Your task to perform on an android device: change text size in settings app Image 0: 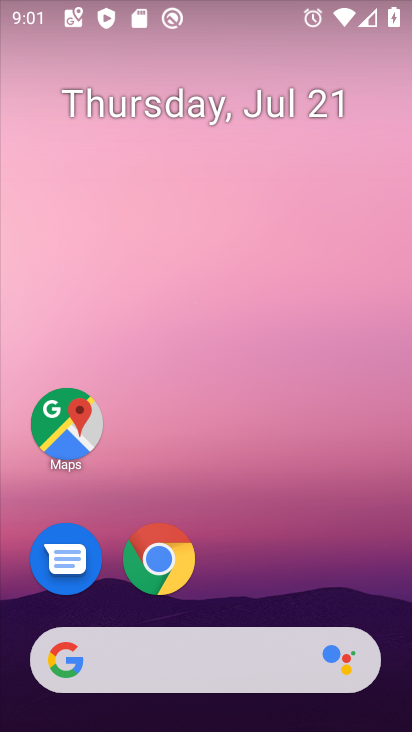
Step 0: drag from (382, 533) to (406, 184)
Your task to perform on an android device: change text size in settings app Image 1: 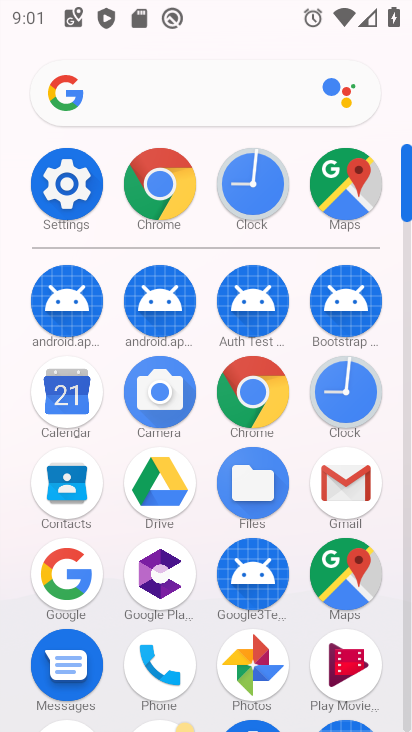
Step 1: click (70, 190)
Your task to perform on an android device: change text size in settings app Image 2: 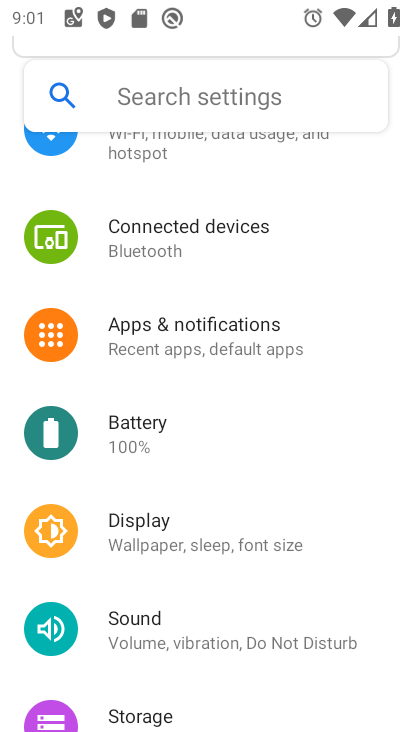
Step 2: drag from (359, 263) to (358, 348)
Your task to perform on an android device: change text size in settings app Image 3: 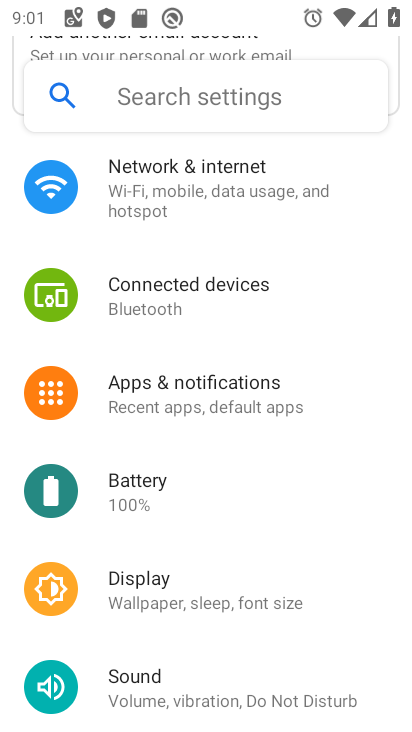
Step 3: drag from (373, 264) to (363, 351)
Your task to perform on an android device: change text size in settings app Image 4: 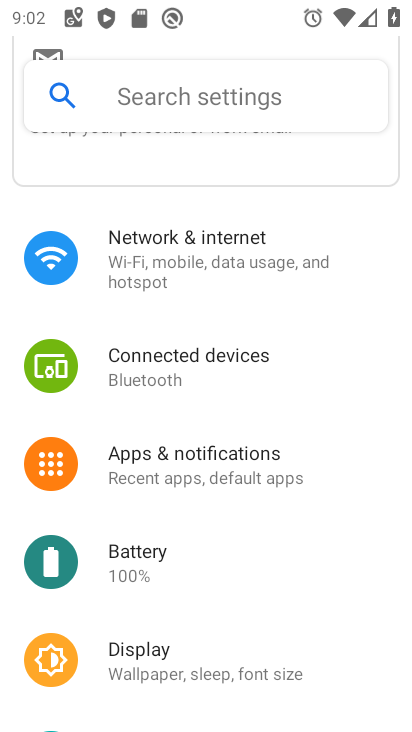
Step 4: drag from (364, 247) to (346, 384)
Your task to perform on an android device: change text size in settings app Image 5: 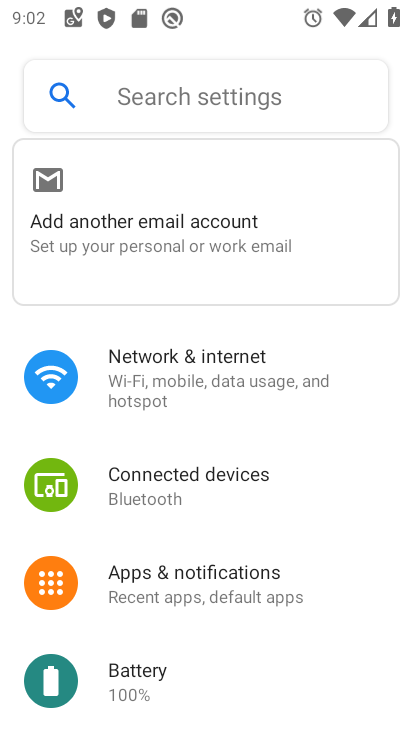
Step 5: drag from (350, 319) to (347, 470)
Your task to perform on an android device: change text size in settings app Image 6: 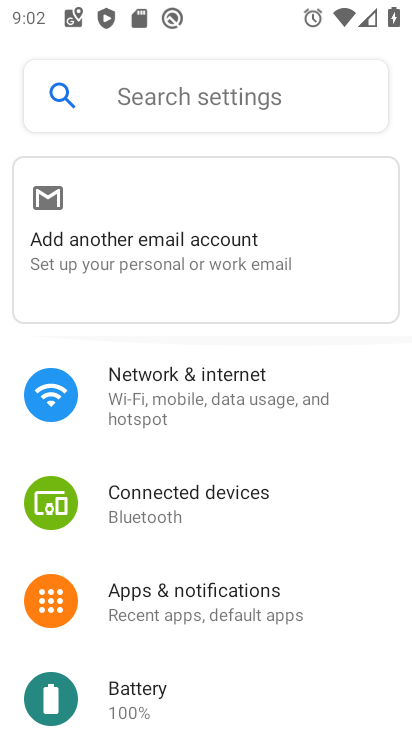
Step 6: drag from (345, 495) to (347, 415)
Your task to perform on an android device: change text size in settings app Image 7: 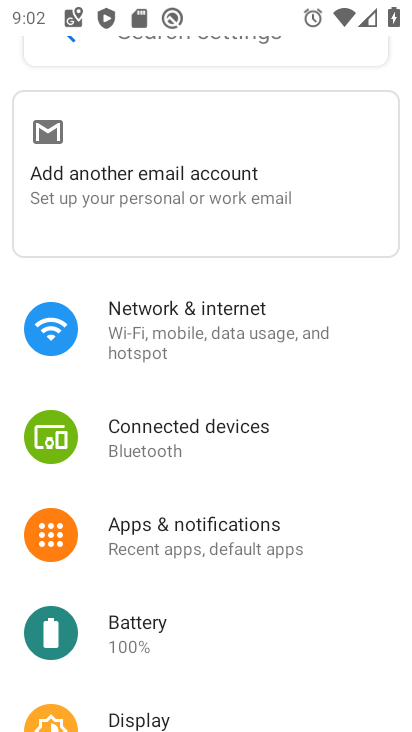
Step 7: drag from (354, 500) to (356, 423)
Your task to perform on an android device: change text size in settings app Image 8: 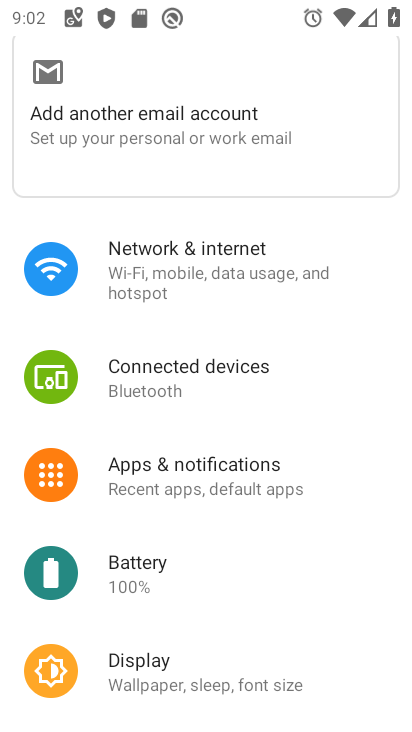
Step 8: drag from (352, 511) to (350, 395)
Your task to perform on an android device: change text size in settings app Image 9: 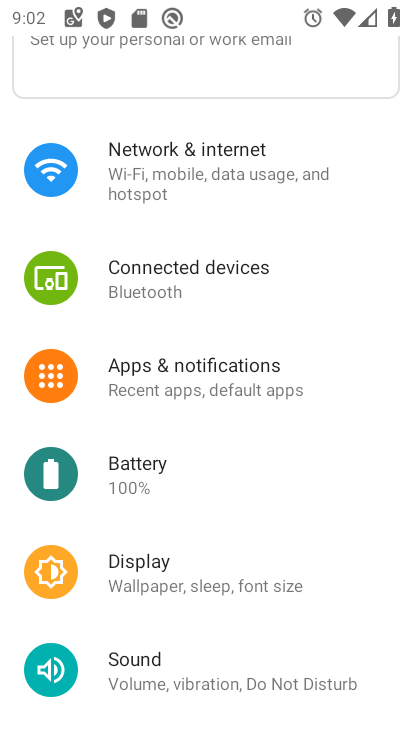
Step 9: drag from (362, 494) to (361, 418)
Your task to perform on an android device: change text size in settings app Image 10: 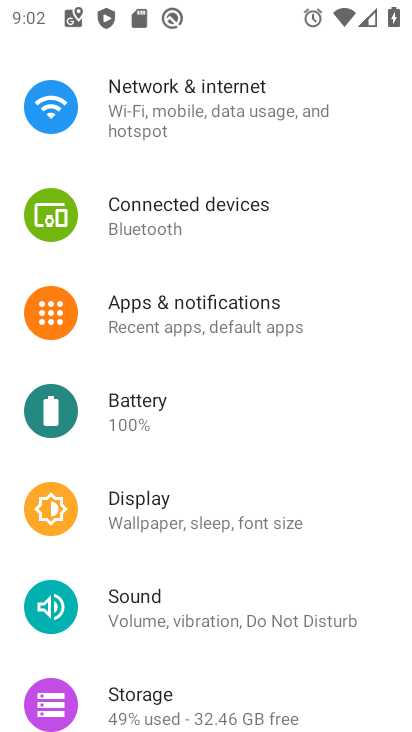
Step 10: drag from (354, 535) to (356, 446)
Your task to perform on an android device: change text size in settings app Image 11: 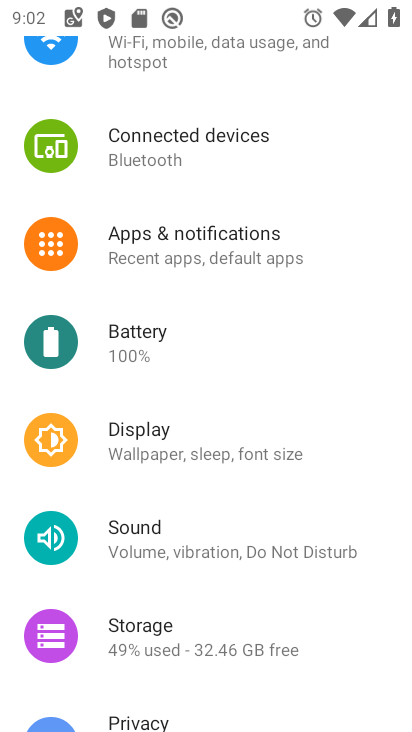
Step 11: click (315, 461)
Your task to perform on an android device: change text size in settings app Image 12: 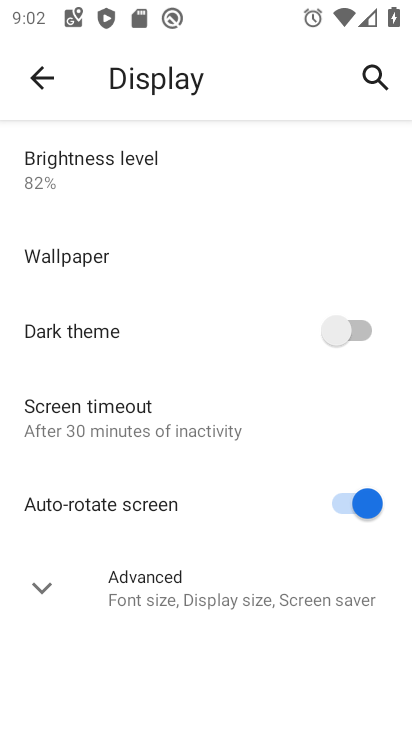
Step 12: click (285, 580)
Your task to perform on an android device: change text size in settings app Image 13: 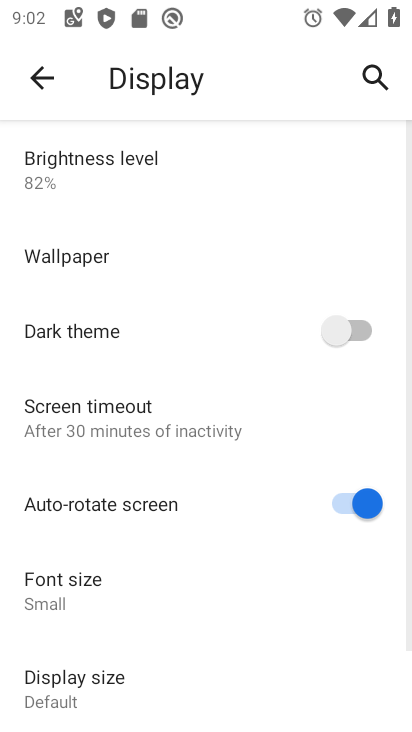
Step 13: drag from (276, 615) to (281, 525)
Your task to perform on an android device: change text size in settings app Image 14: 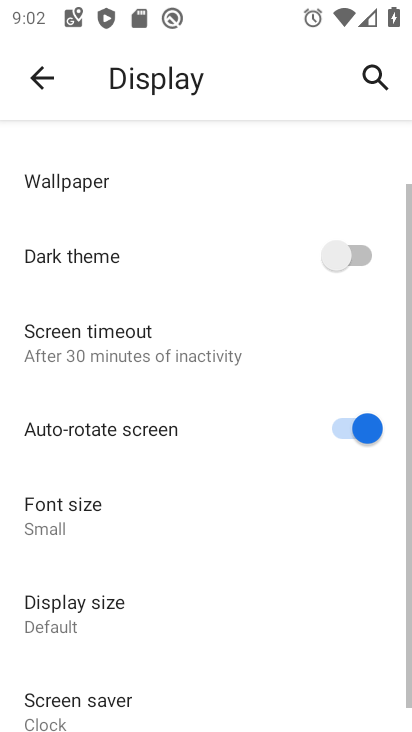
Step 14: click (204, 534)
Your task to perform on an android device: change text size in settings app Image 15: 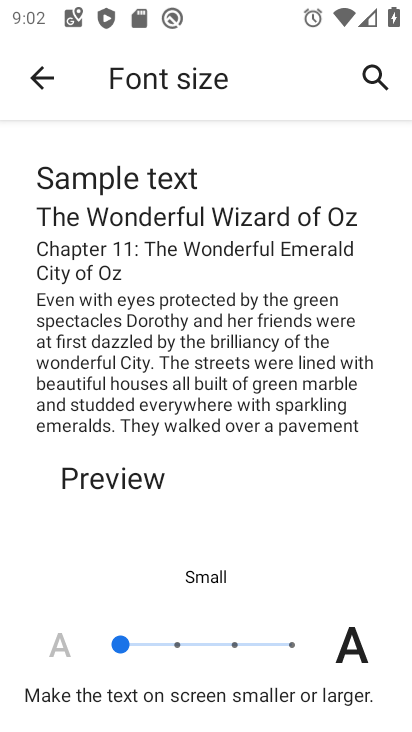
Step 15: click (289, 643)
Your task to perform on an android device: change text size in settings app Image 16: 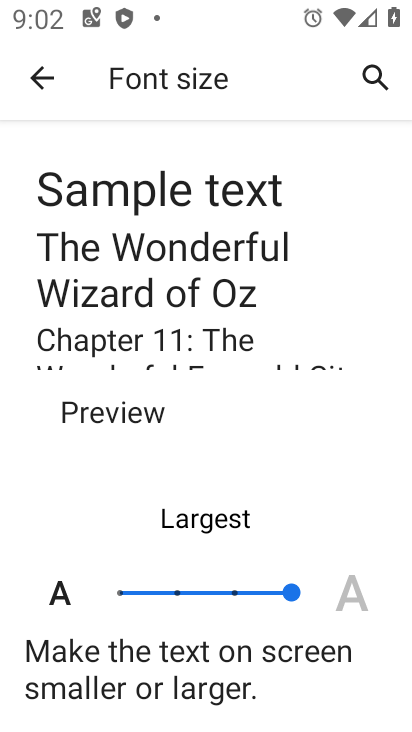
Step 16: task complete